Your task to perform on an android device: Is it going to rain this weekend? Image 0: 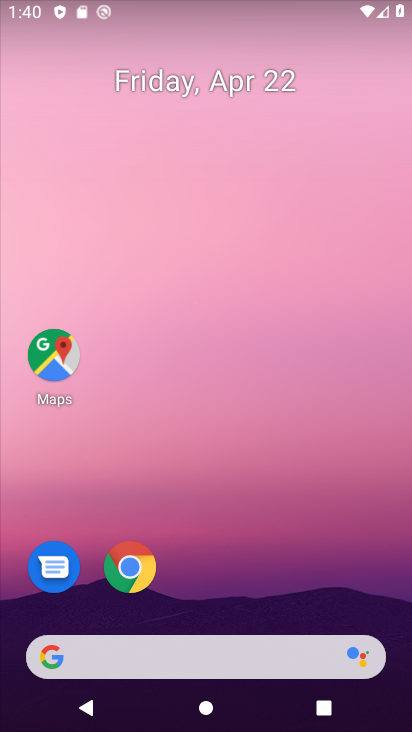
Step 0: drag from (260, 465) to (260, 11)
Your task to perform on an android device: Is it going to rain this weekend? Image 1: 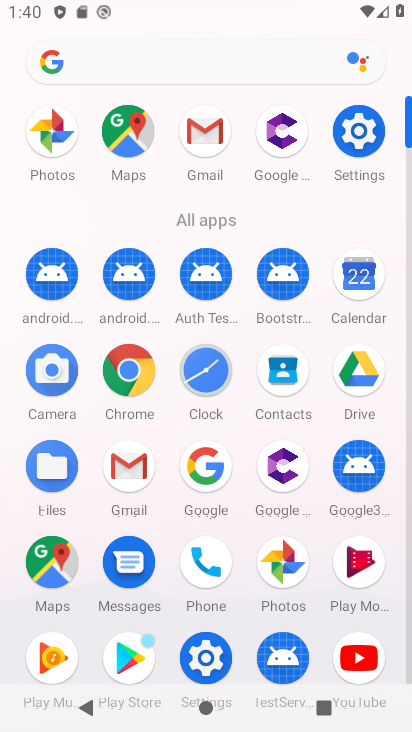
Step 1: click (204, 468)
Your task to perform on an android device: Is it going to rain this weekend? Image 2: 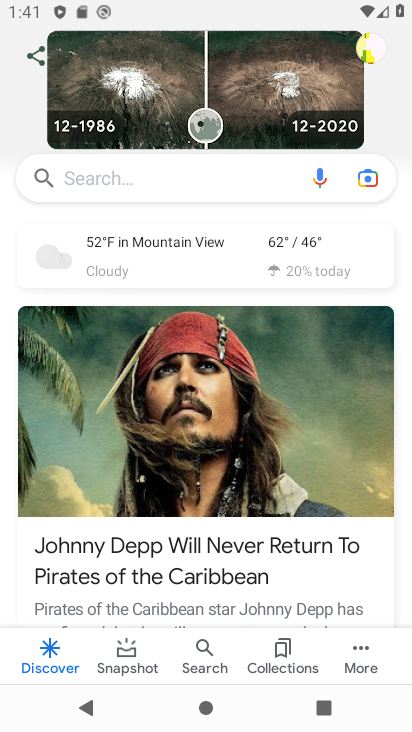
Step 2: drag from (206, 170) to (220, 499)
Your task to perform on an android device: Is it going to rain this weekend? Image 3: 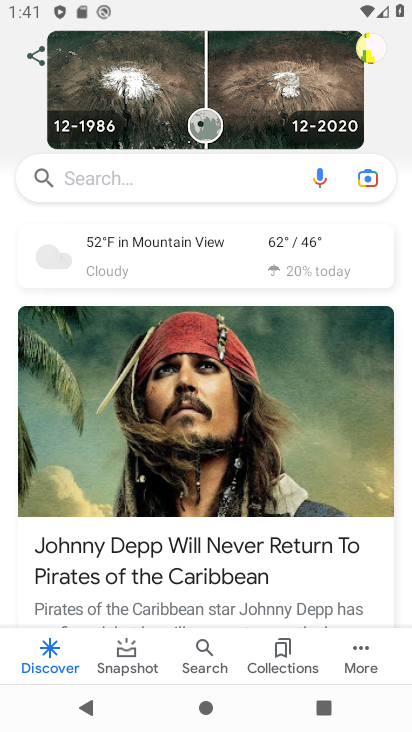
Step 3: click (132, 241)
Your task to perform on an android device: Is it going to rain this weekend? Image 4: 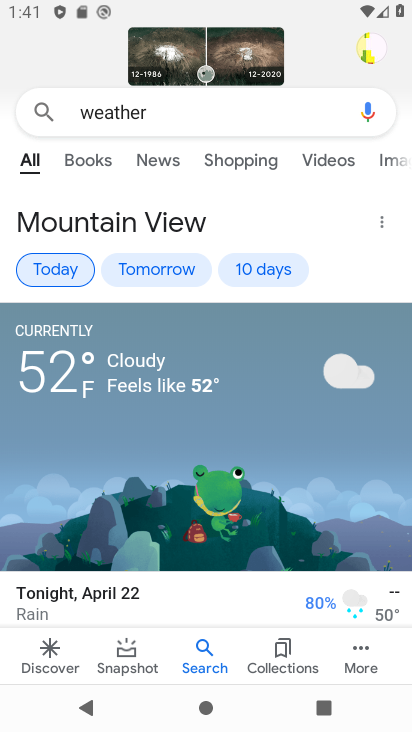
Step 4: task complete